Your task to perform on an android device: create a new album in the google photos Image 0: 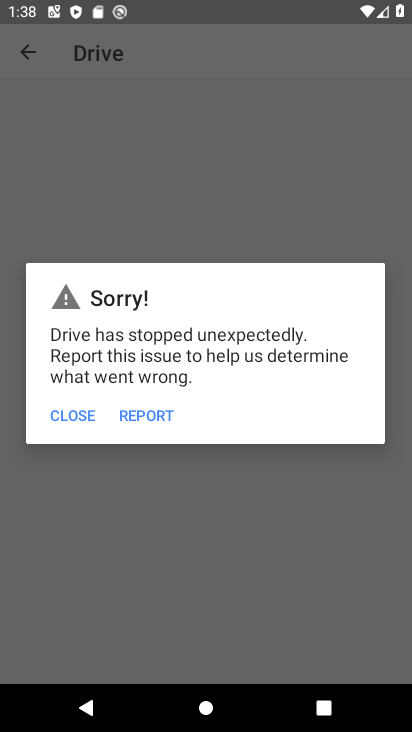
Step 0: press home button
Your task to perform on an android device: create a new album in the google photos Image 1: 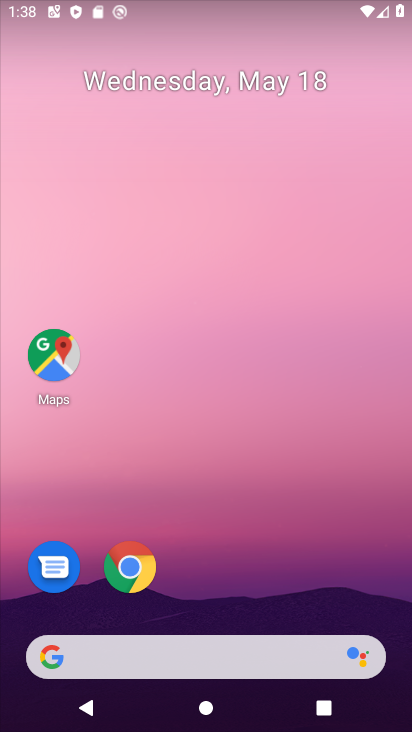
Step 1: drag from (221, 598) to (301, 132)
Your task to perform on an android device: create a new album in the google photos Image 2: 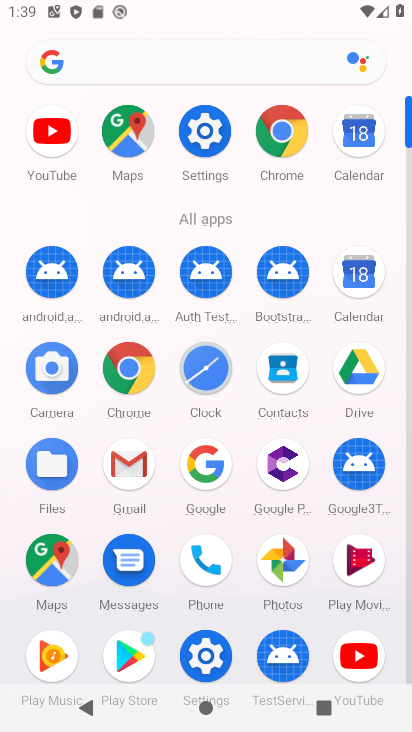
Step 2: click (288, 562)
Your task to perform on an android device: create a new album in the google photos Image 3: 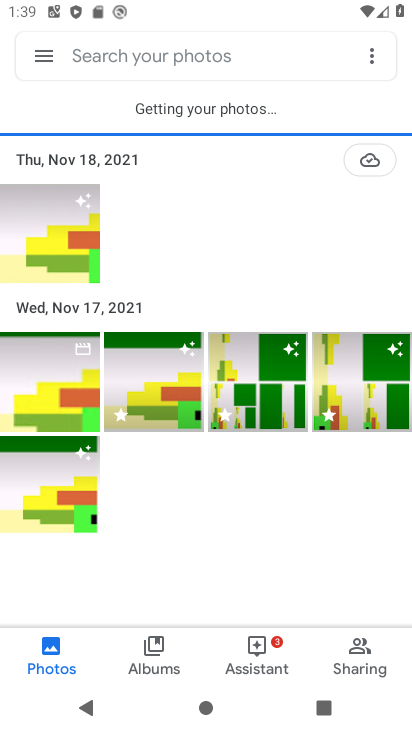
Step 3: click (165, 634)
Your task to perform on an android device: create a new album in the google photos Image 4: 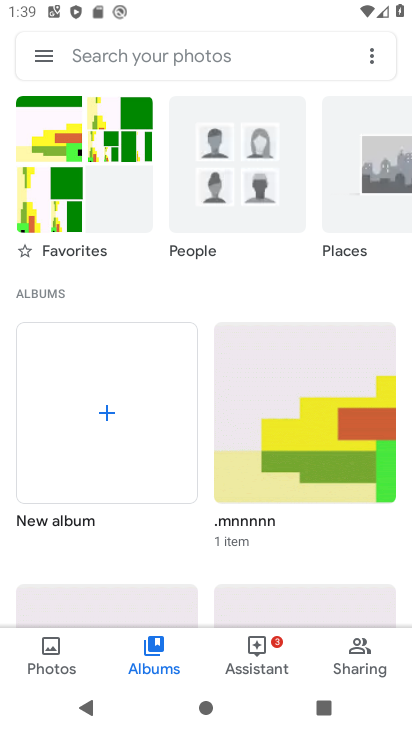
Step 4: click (97, 413)
Your task to perform on an android device: create a new album in the google photos Image 5: 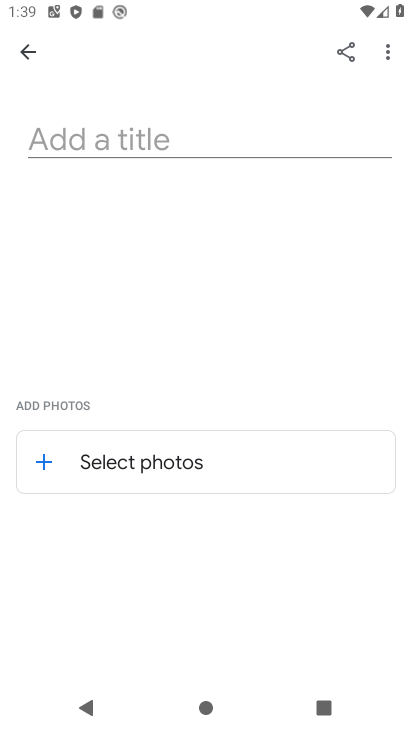
Step 5: click (183, 129)
Your task to perform on an android device: create a new album in the google photos Image 6: 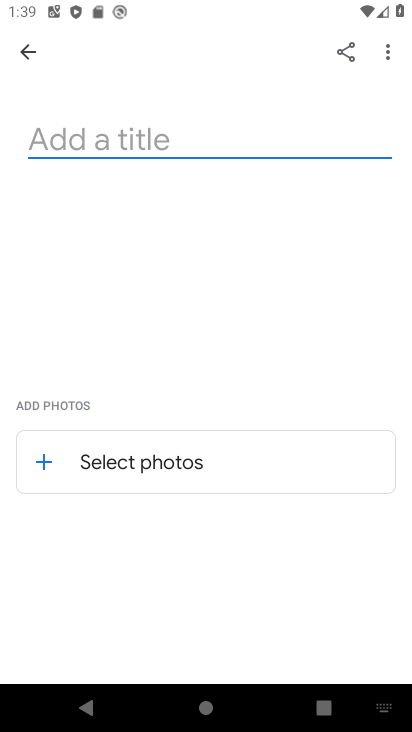
Step 6: type "hgfghfufufuyfhjfyu"
Your task to perform on an android device: create a new album in the google photos Image 7: 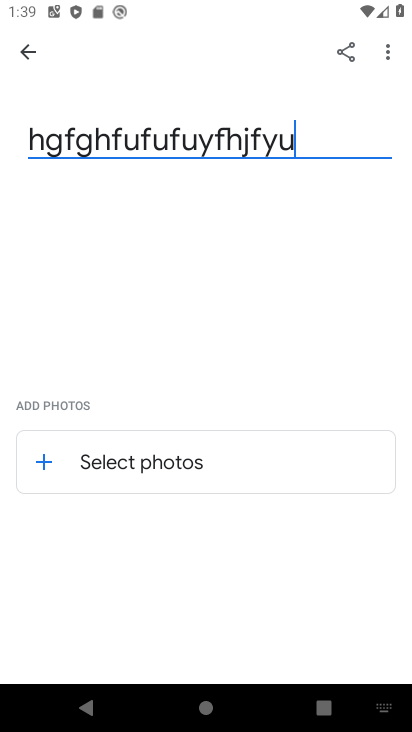
Step 7: type ""
Your task to perform on an android device: create a new album in the google photos Image 8: 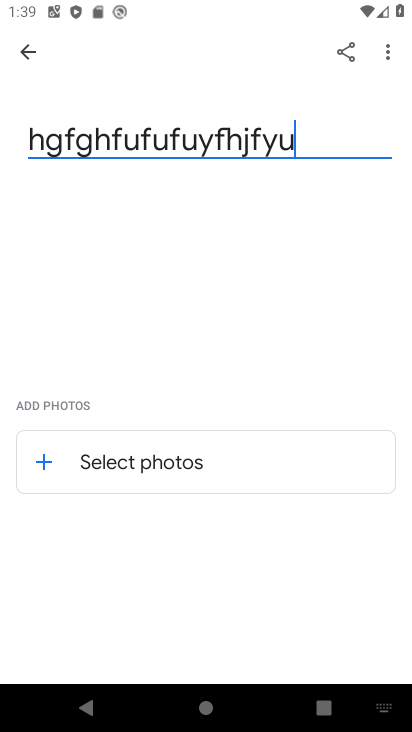
Step 8: click (131, 465)
Your task to perform on an android device: create a new album in the google photos Image 9: 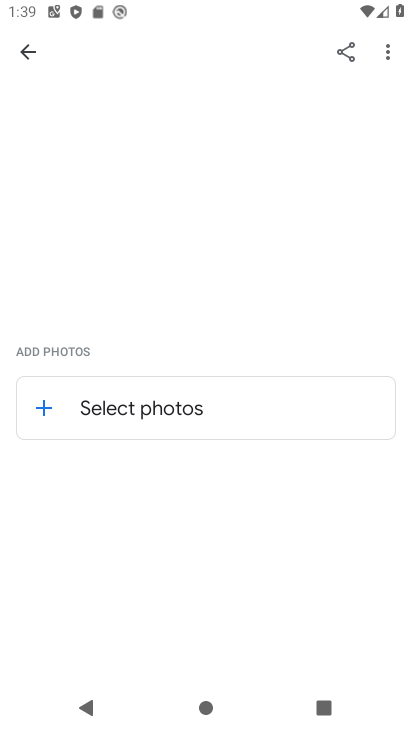
Step 9: click (153, 395)
Your task to perform on an android device: create a new album in the google photos Image 10: 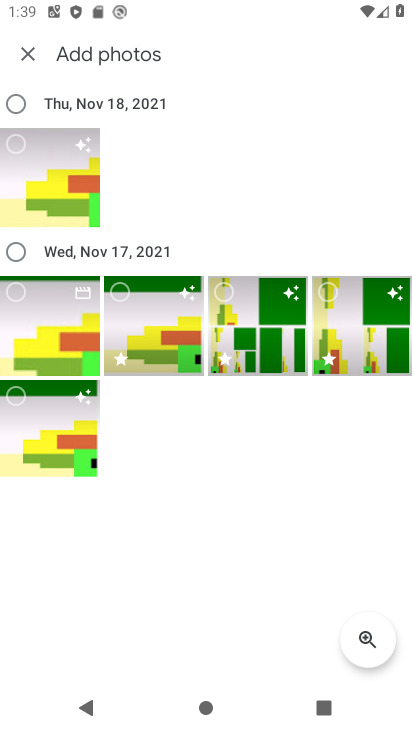
Step 10: click (30, 144)
Your task to perform on an android device: create a new album in the google photos Image 11: 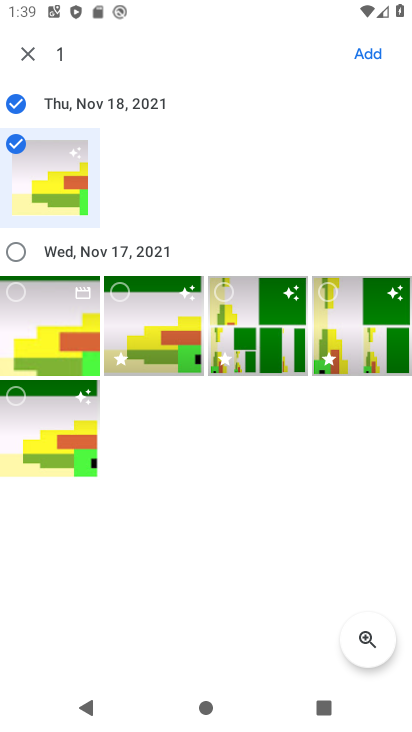
Step 11: click (368, 51)
Your task to perform on an android device: create a new album in the google photos Image 12: 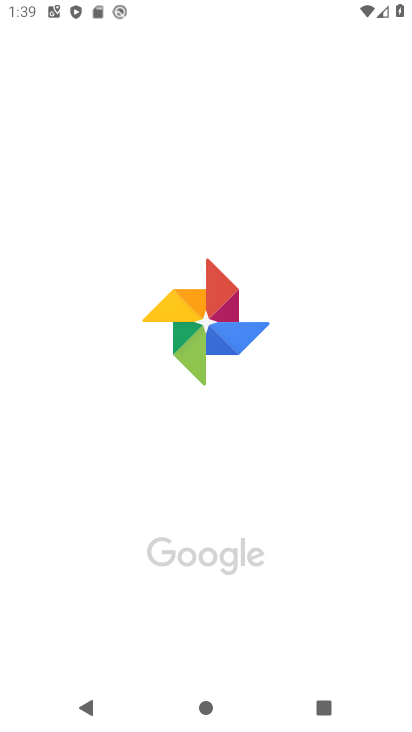
Step 12: task complete